Your task to perform on an android device: What's the weather? Image 0: 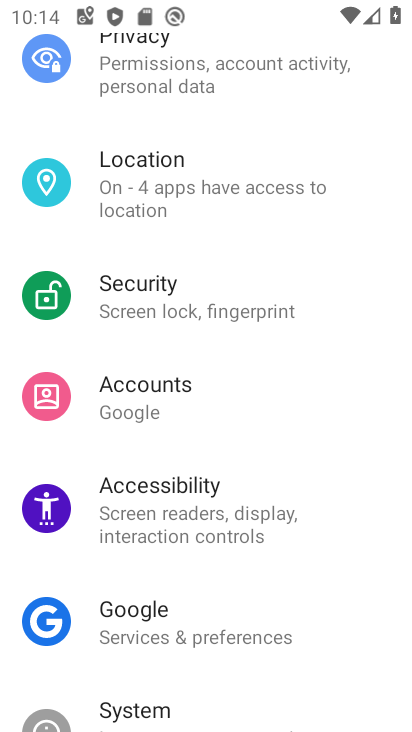
Step 0: press home button
Your task to perform on an android device: What's the weather? Image 1: 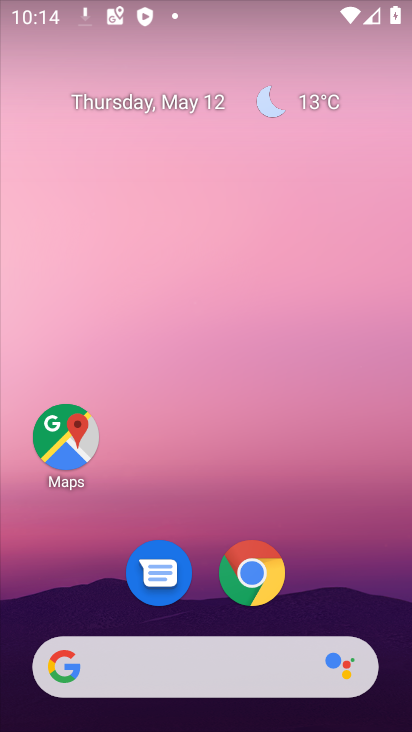
Step 1: click (206, 667)
Your task to perform on an android device: What's the weather? Image 2: 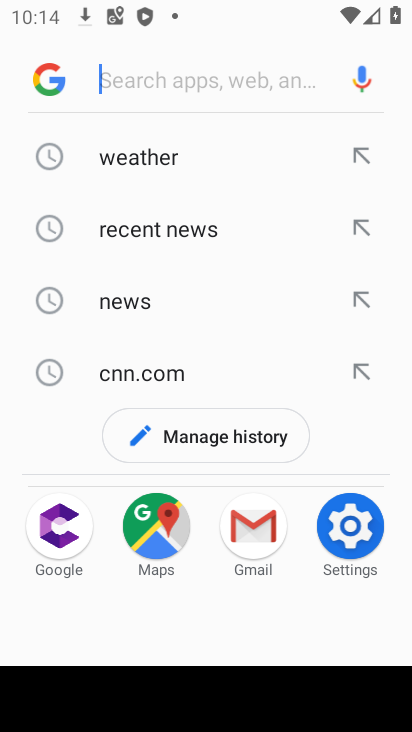
Step 2: click (202, 161)
Your task to perform on an android device: What's the weather? Image 3: 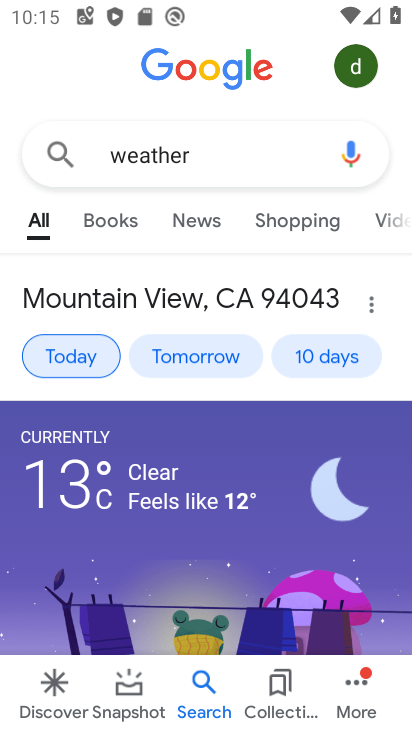
Step 3: press back button
Your task to perform on an android device: What's the weather? Image 4: 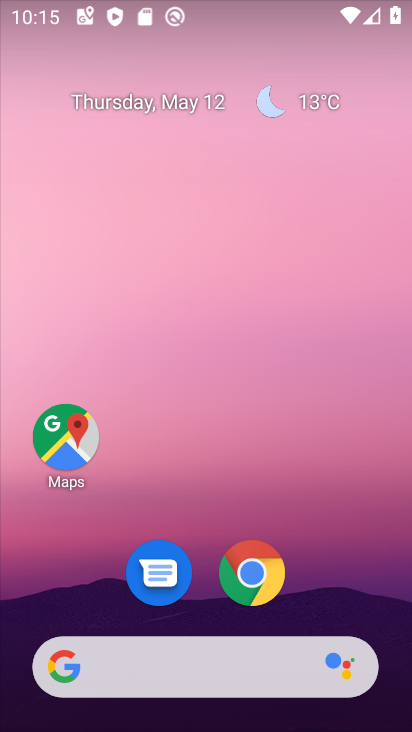
Step 4: drag from (214, 598) to (142, 33)
Your task to perform on an android device: What's the weather? Image 5: 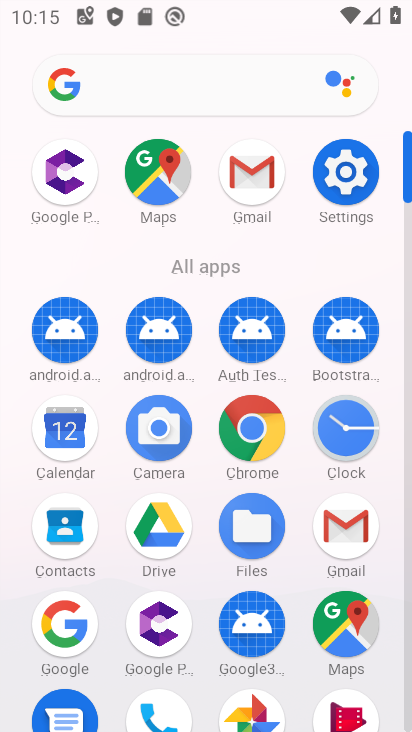
Step 5: click (64, 617)
Your task to perform on an android device: What's the weather? Image 6: 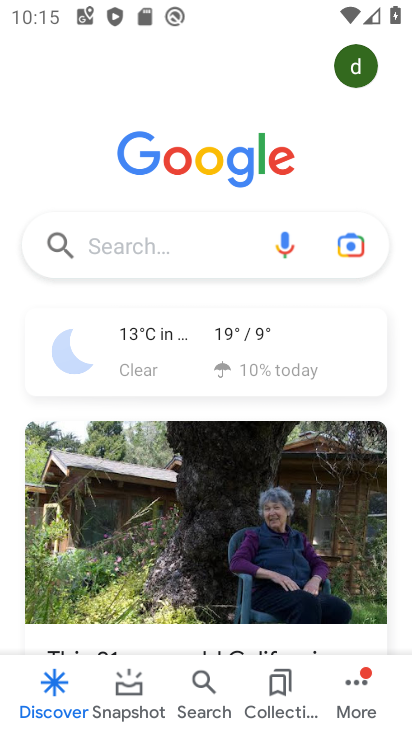
Step 6: click (148, 362)
Your task to perform on an android device: What's the weather? Image 7: 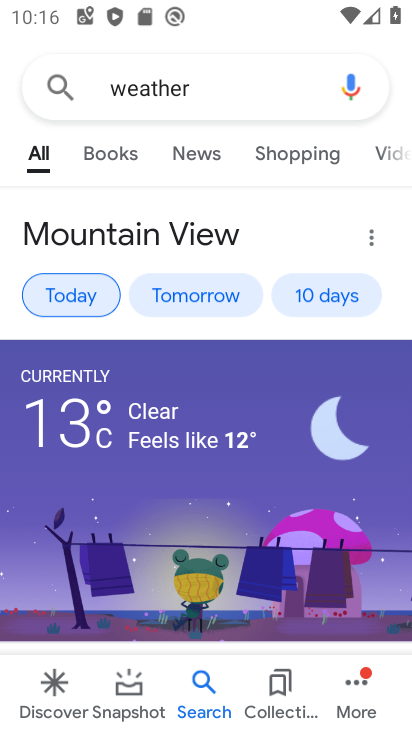
Step 7: task complete